Your task to perform on an android device: add a contact Image 0: 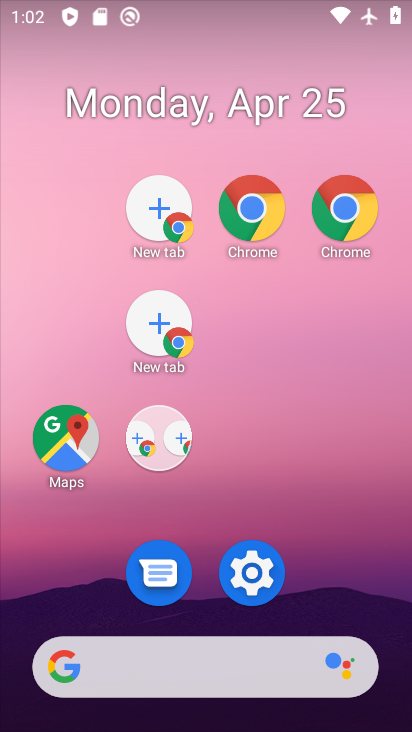
Step 0: drag from (338, 714) to (241, 54)
Your task to perform on an android device: add a contact Image 1: 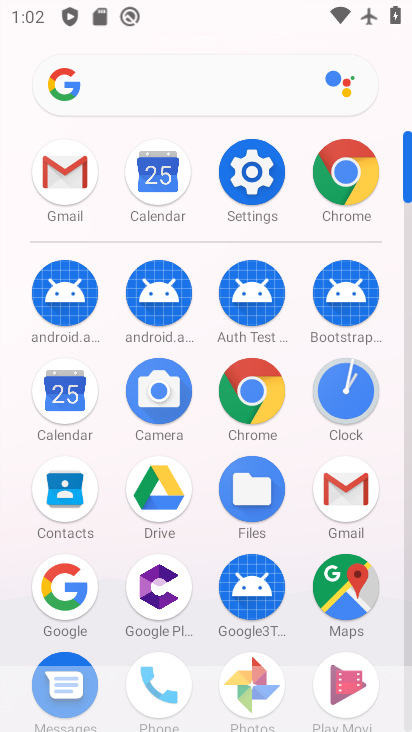
Step 1: click (60, 393)
Your task to perform on an android device: add a contact Image 2: 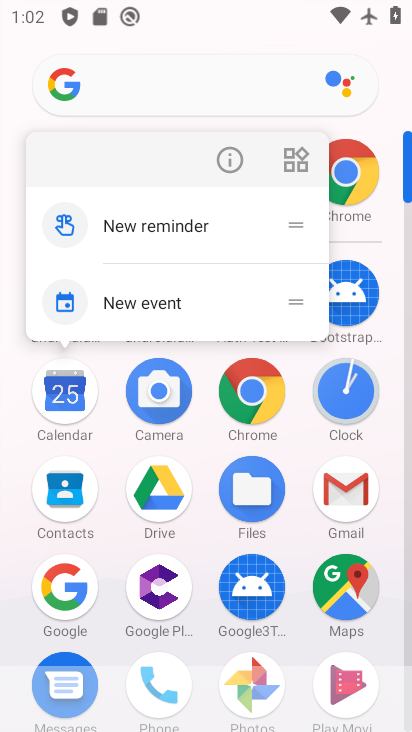
Step 2: click (59, 392)
Your task to perform on an android device: add a contact Image 3: 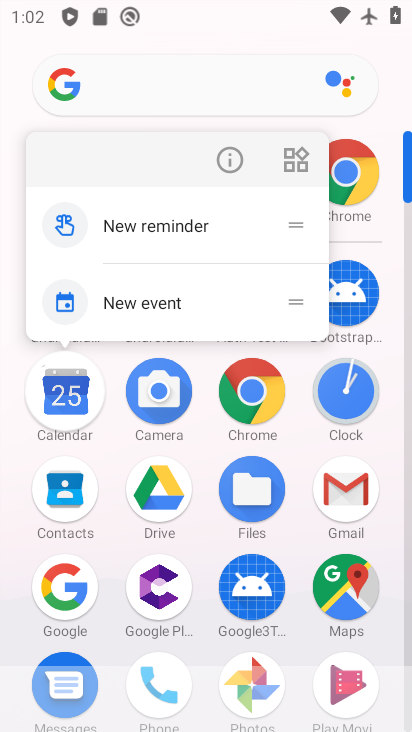
Step 3: click (59, 392)
Your task to perform on an android device: add a contact Image 4: 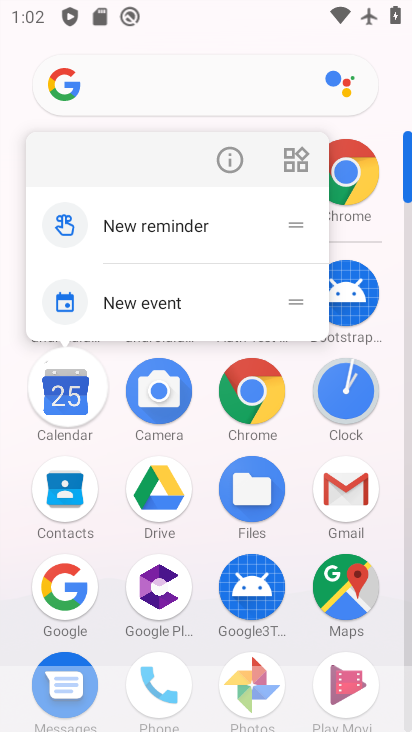
Step 4: click (62, 388)
Your task to perform on an android device: add a contact Image 5: 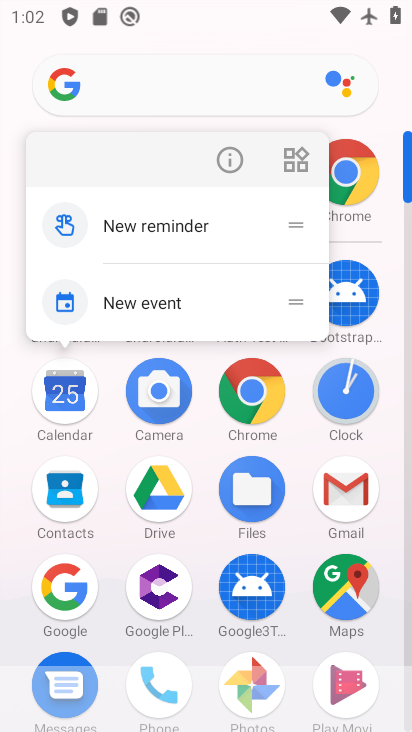
Step 5: click (62, 506)
Your task to perform on an android device: add a contact Image 6: 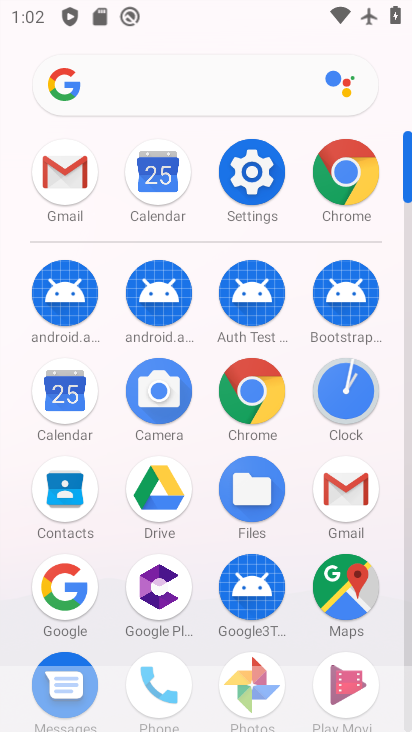
Step 6: click (69, 496)
Your task to perform on an android device: add a contact Image 7: 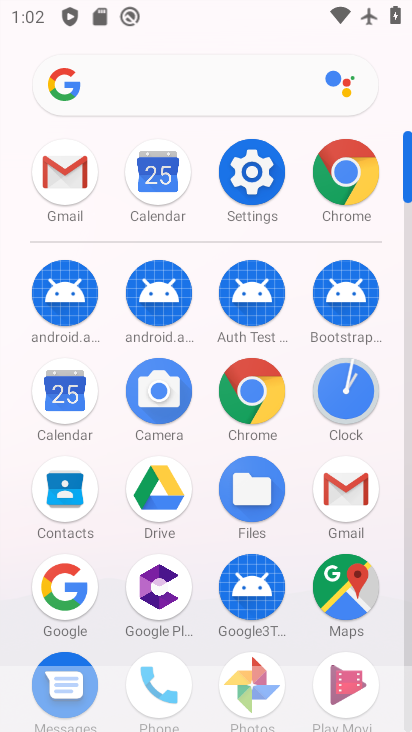
Step 7: click (69, 496)
Your task to perform on an android device: add a contact Image 8: 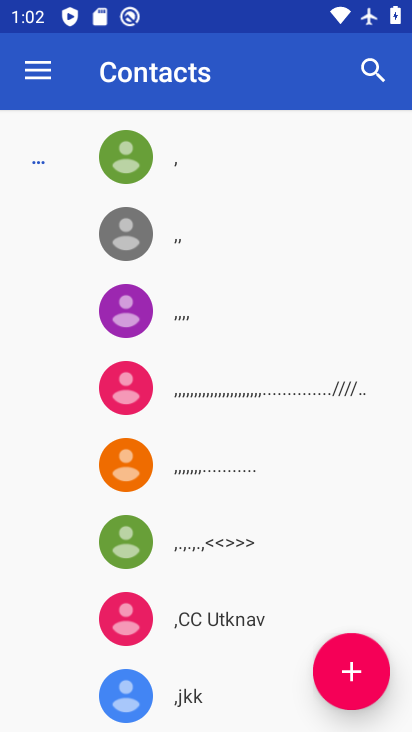
Step 8: click (355, 668)
Your task to perform on an android device: add a contact Image 9: 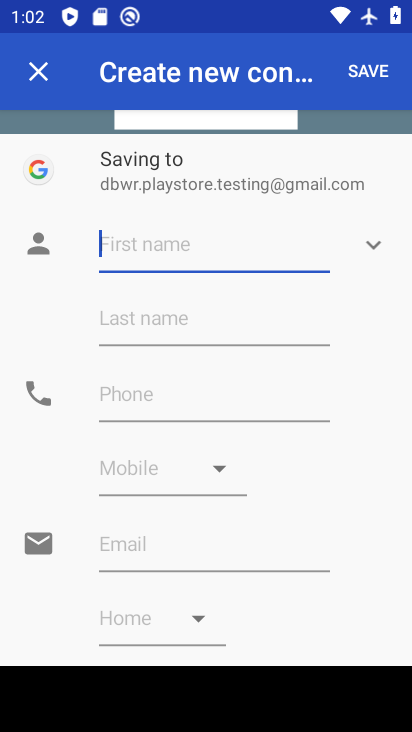
Step 9: click (115, 247)
Your task to perform on an android device: add a contact Image 10: 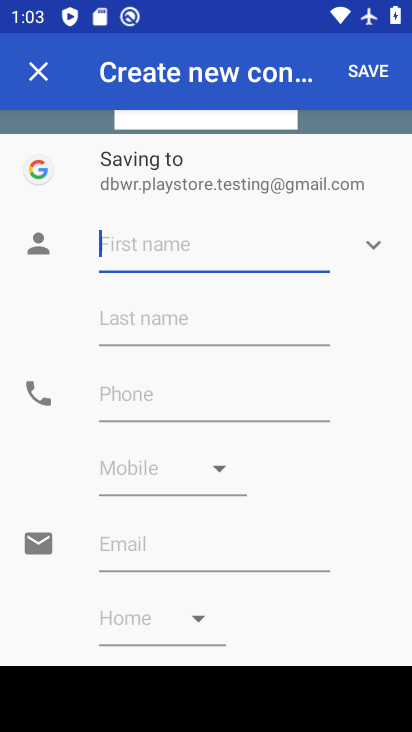
Step 10: type "priya"
Your task to perform on an android device: add a contact Image 11: 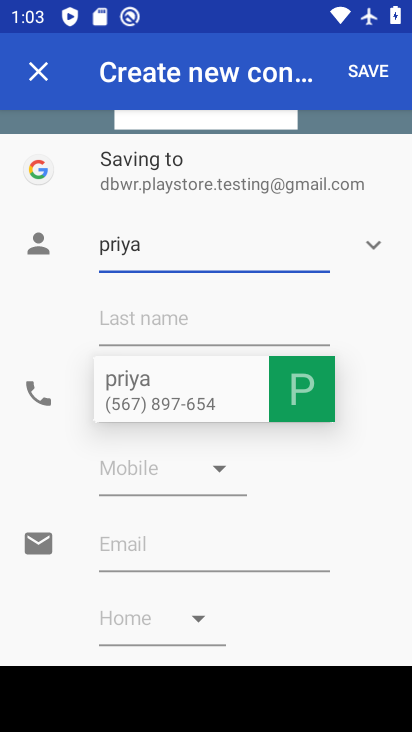
Step 11: click (45, 390)
Your task to perform on an android device: add a contact Image 12: 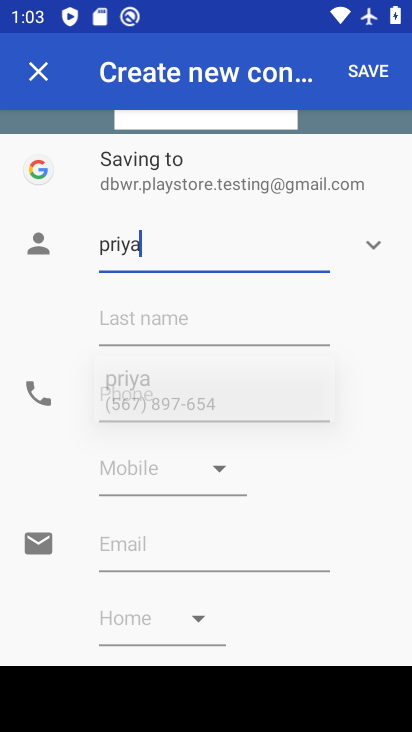
Step 12: click (45, 390)
Your task to perform on an android device: add a contact Image 13: 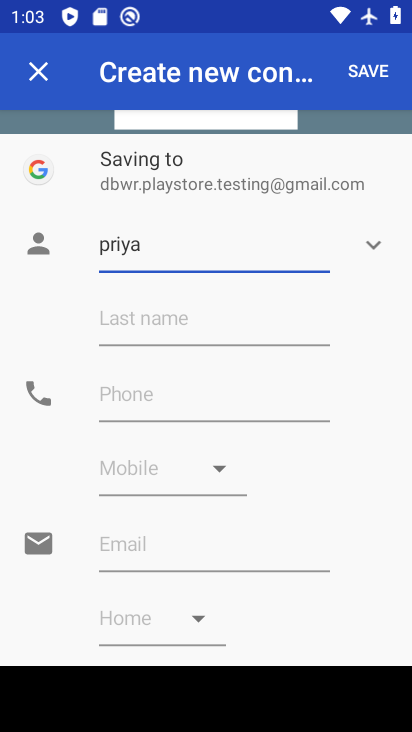
Step 13: click (45, 390)
Your task to perform on an android device: add a contact Image 14: 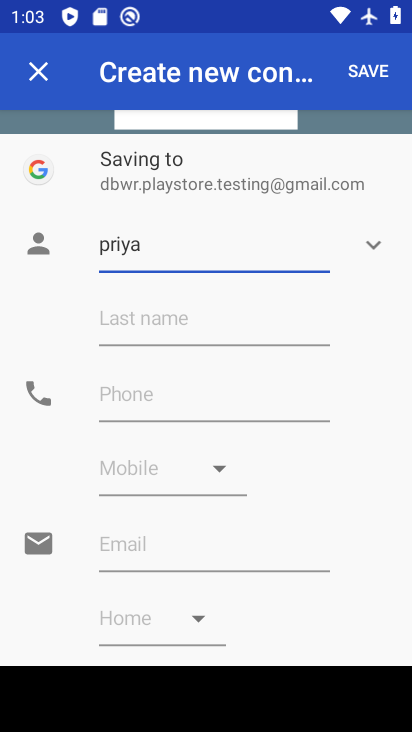
Step 14: click (114, 385)
Your task to perform on an android device: add a contact Image 15: 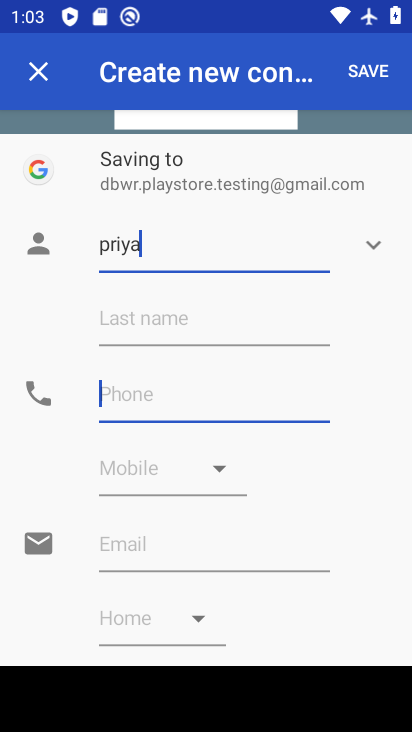
Step 15: click (114, 385)
Your task to perform on an android device: add a contact Image 16: 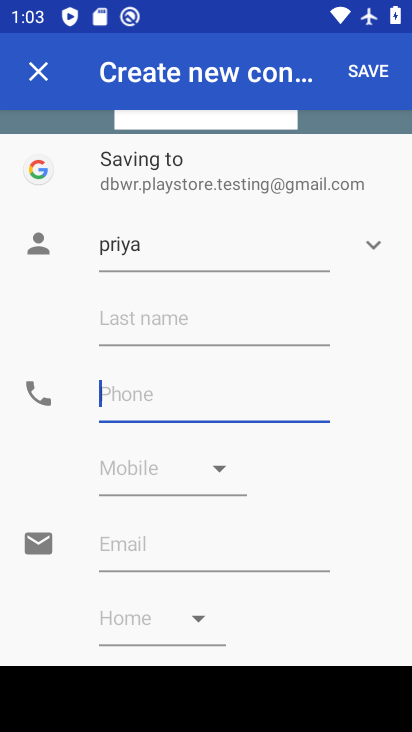
Step 16: type "9789564534"
Your task to perform on an android device: add a contact Image 17: 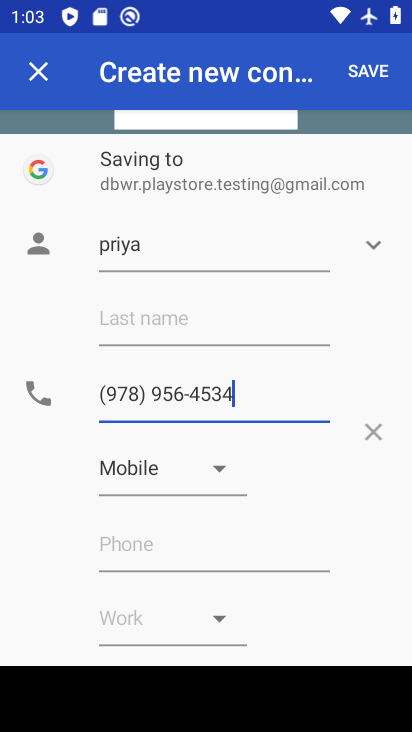
Step 17: click (355, 79)
Your task to perform on an android device: add a contact Image 18: 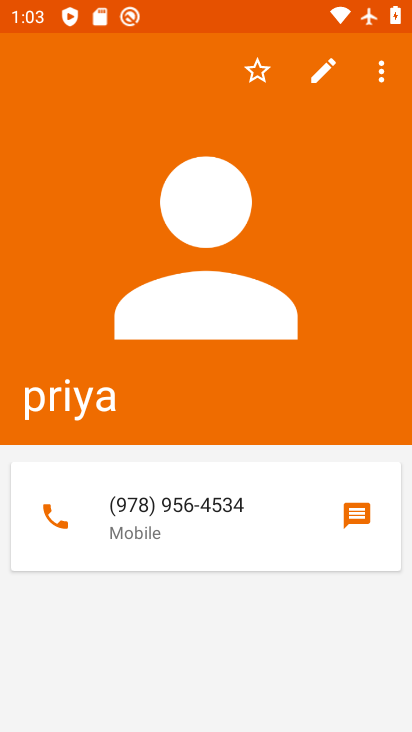
Step 18: task complete